Your task to perform on an android device: Open Chrome and go to settings Image 0: 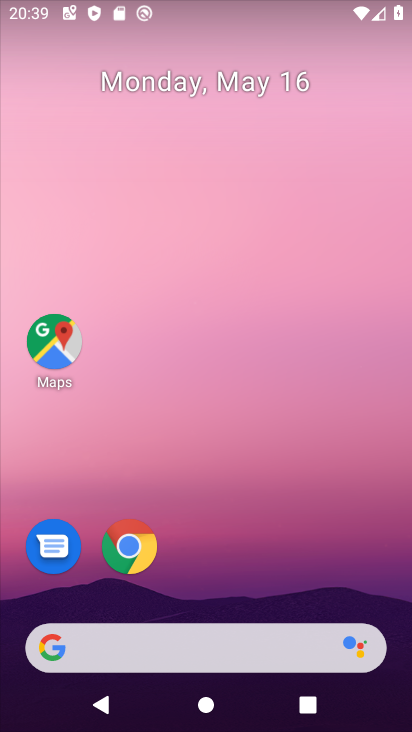
Step 0: click (131, 544)
Your task to perform on an android device: Open Chrome and go to settings Image 1: 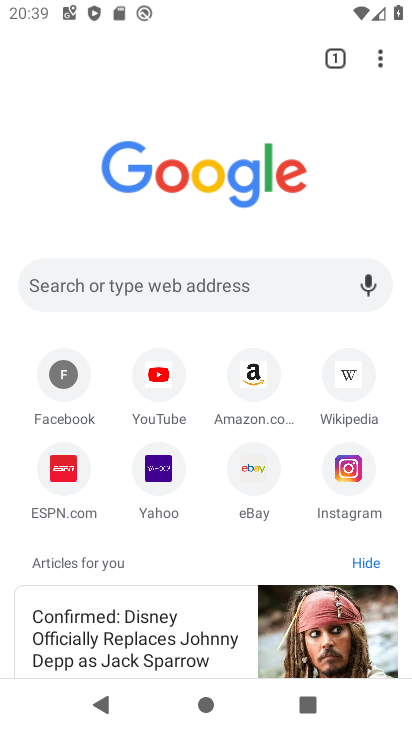
Step 1: click (381, 66)
Your task to perform on an android device: Open Chrome and go to settings Image 2: 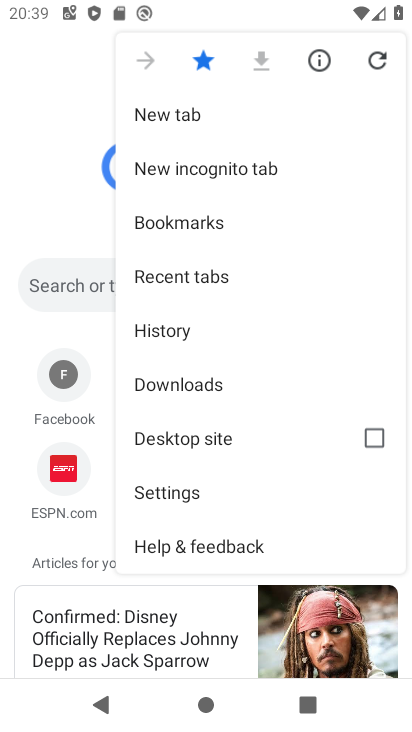
Step 2: click (221, 508)
Your task to perform on an android device: Open Chrome and go to settings Image 3: 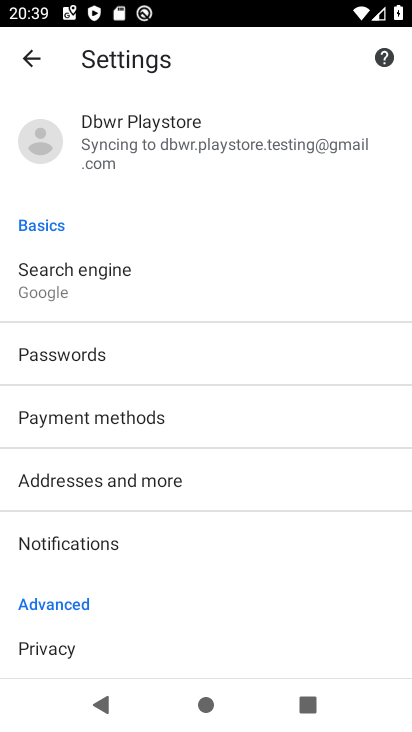
Step 3: task complete